Your task to perform on an android device: open a new tab in the chrome app Image 0: 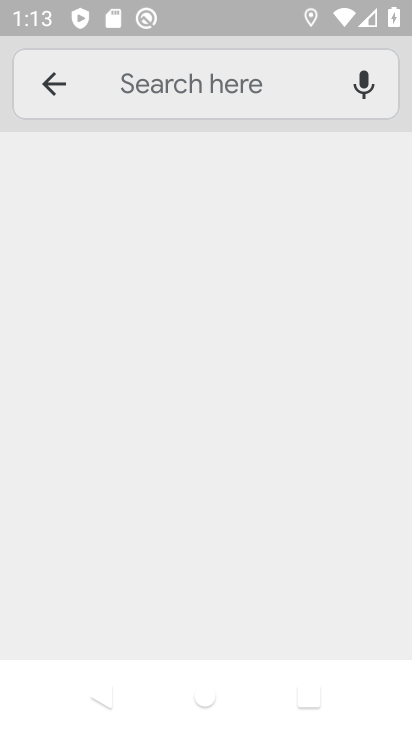
Step 0: press home button
Your task to perform on an android device: open a new tab in the chrome app Image 1: 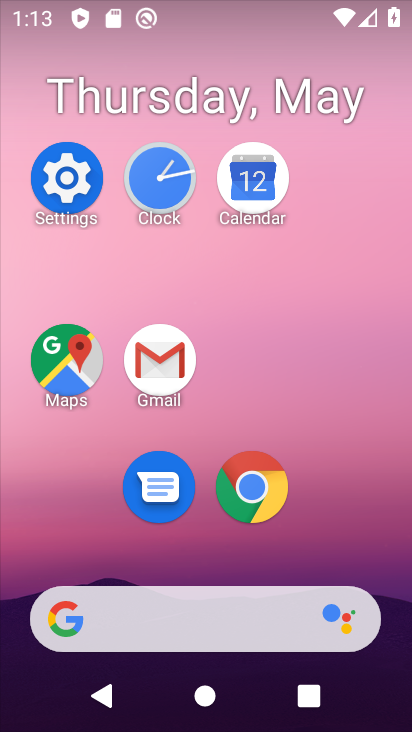
Step 1: click (257, 475)
Your task to perform on an android device: open a new tab in the chrome app Image 2: 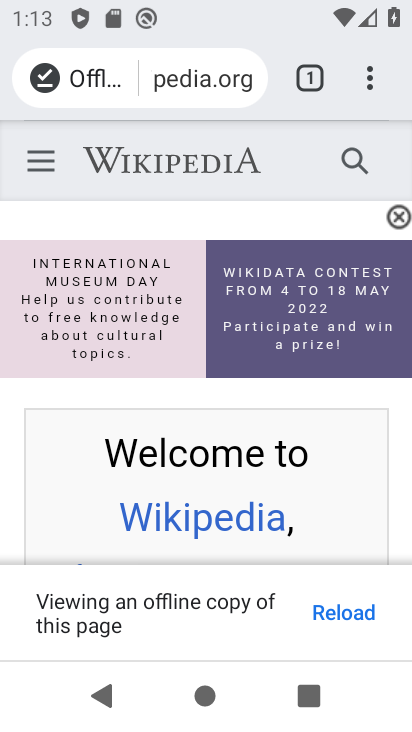
Step 2: click (319, 71)
Your task to perform on an android device: open a new tab in the chrome app Image 3: 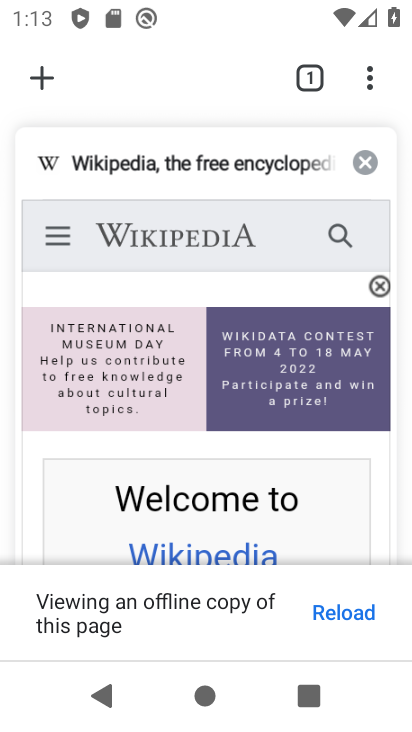
Step 3: click (49, 75)
Your task to perform on an android device: open a new tab in the chrome app Image 4: 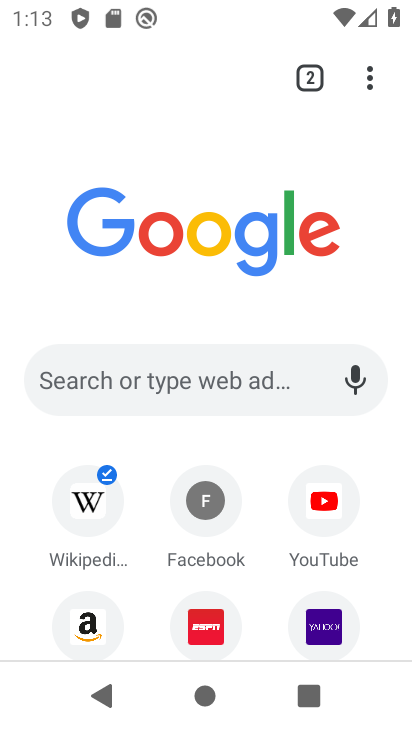
Step 4: task complete